Your task to perform on an android device: install app "Facebook Messenger" Image 0: 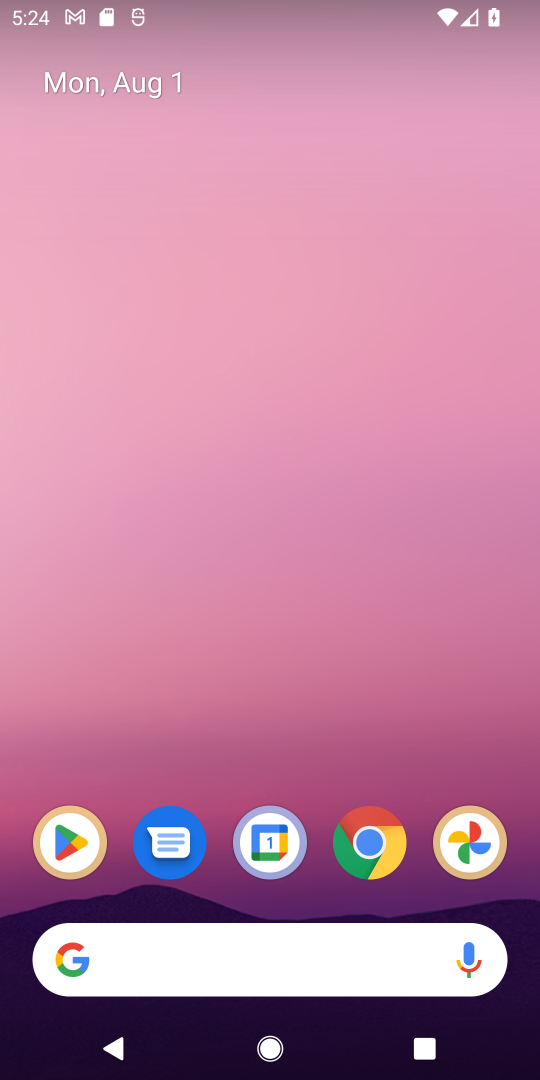
Step 0: drag from (412, 987) to (266, 317)
Your task to perform on an android device: install app "Facebook Messenger" Image 1: 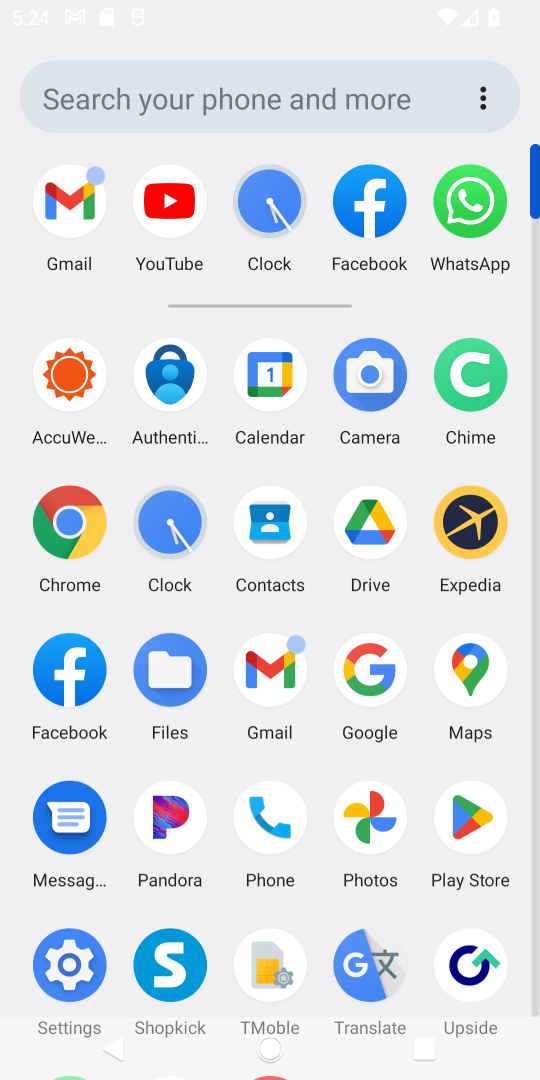
Step 1: drag from (371, 804) to (264, 307)
Your task to perform on an android device: install app "Facebook Messenger" Image 2: 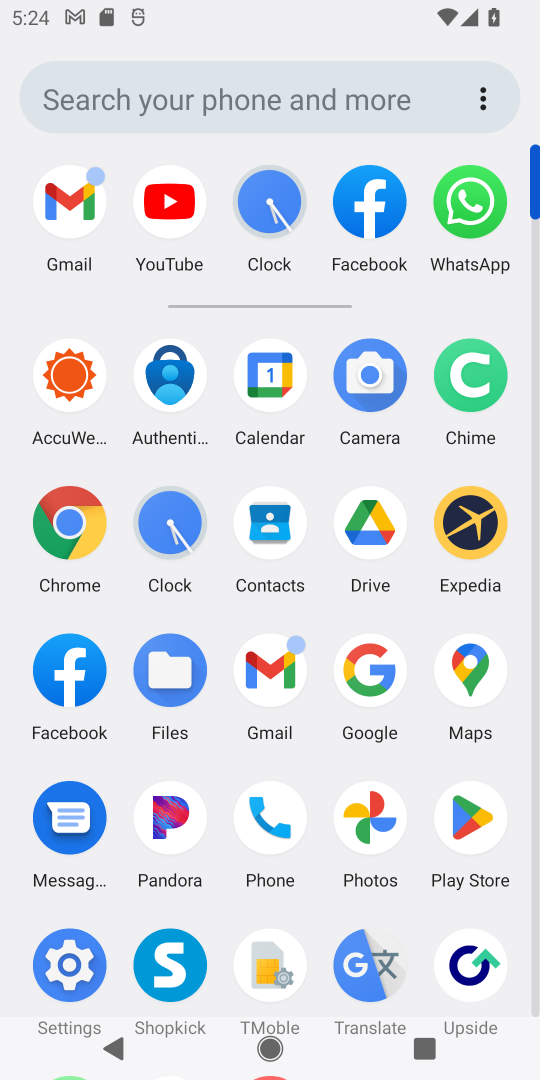
Step 2: click (463, 819)
Your task to perform on an android device: install app "Facebook Messenger" Image 3: 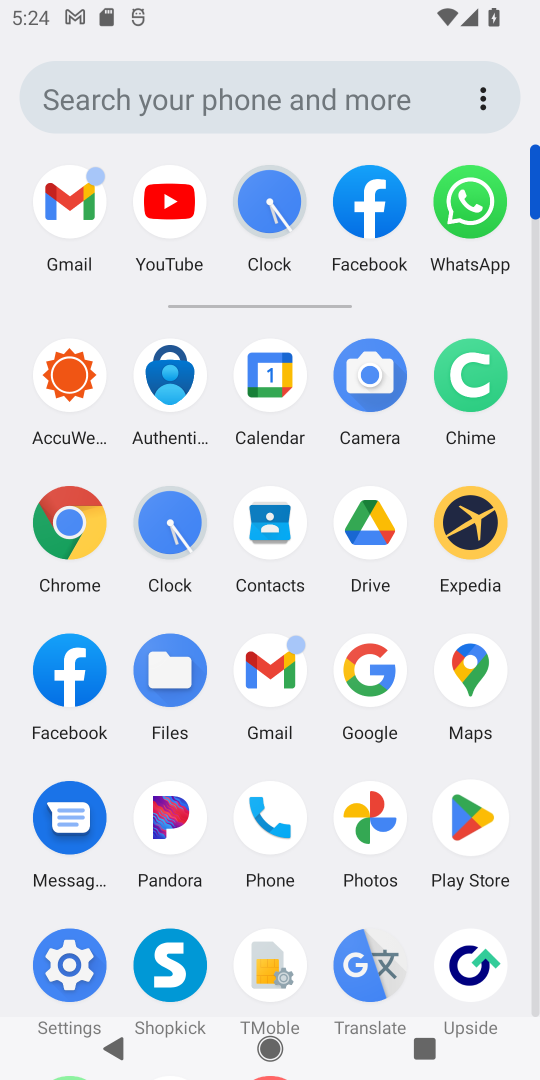
Step 3: click (463, 819)
Your task to perform on an android device: install app "Facebook Messenger" Image 4: 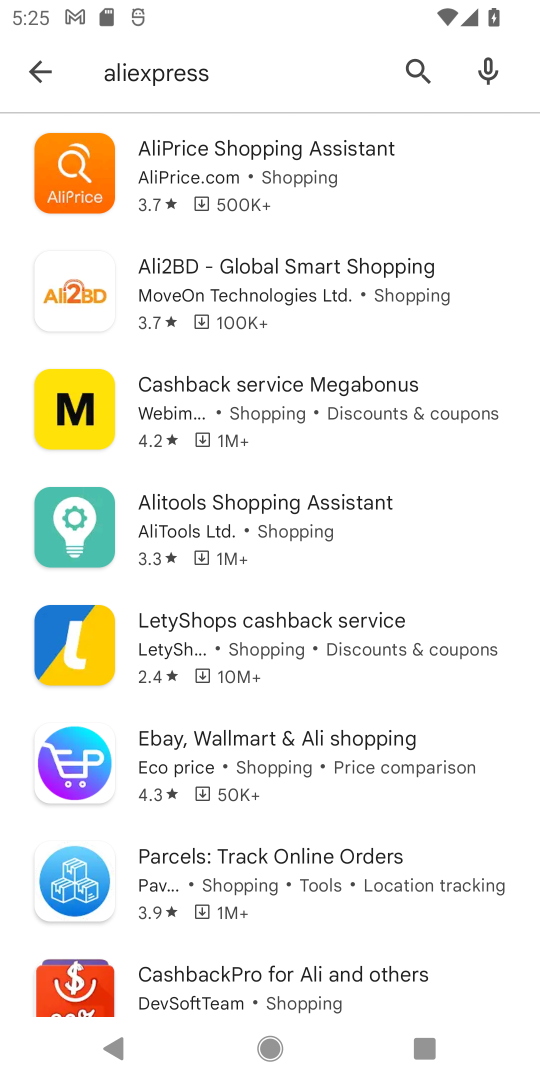
Step 4: click (20, 70)
Your task to perform on an android device: install app "Facebook Messenger" Image 5: 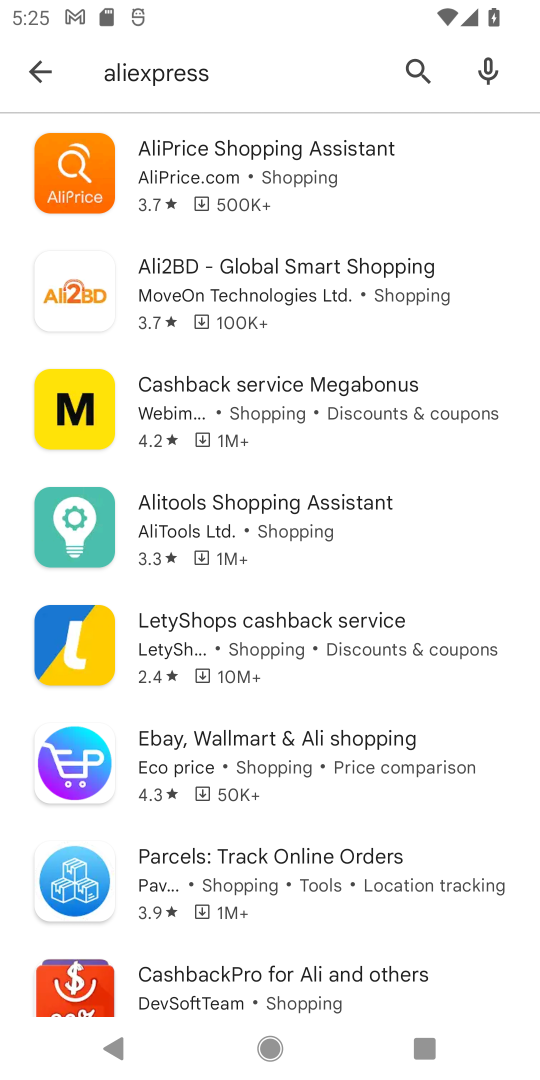
Step 5: click (24, 82)
Your task to perform on an android device: install app "Facebook Messenger" Image 6: 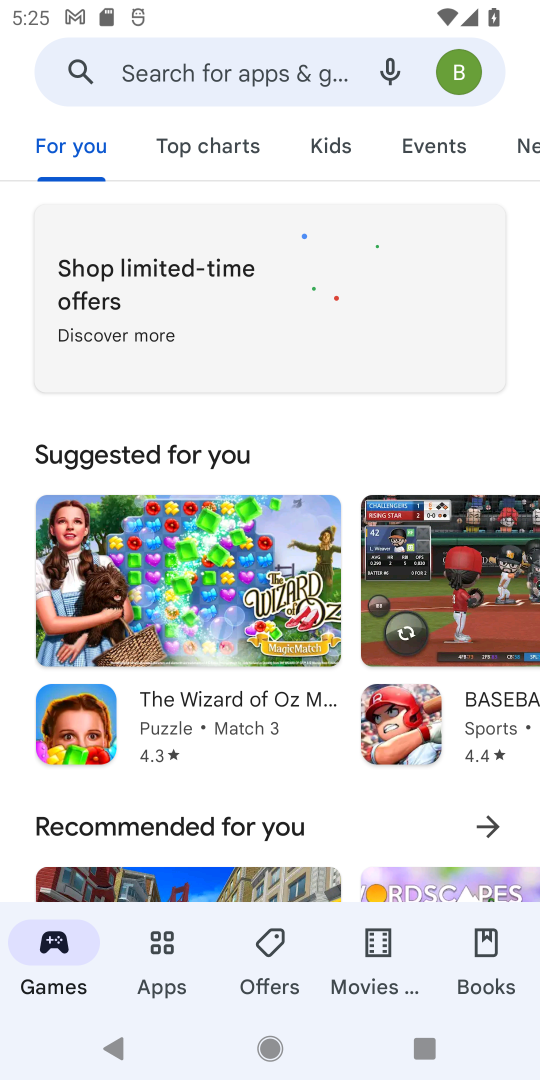
Step 6: click (159, 56)
Your task to perform on an android device: install app "Facebook Messenger" Image 7: 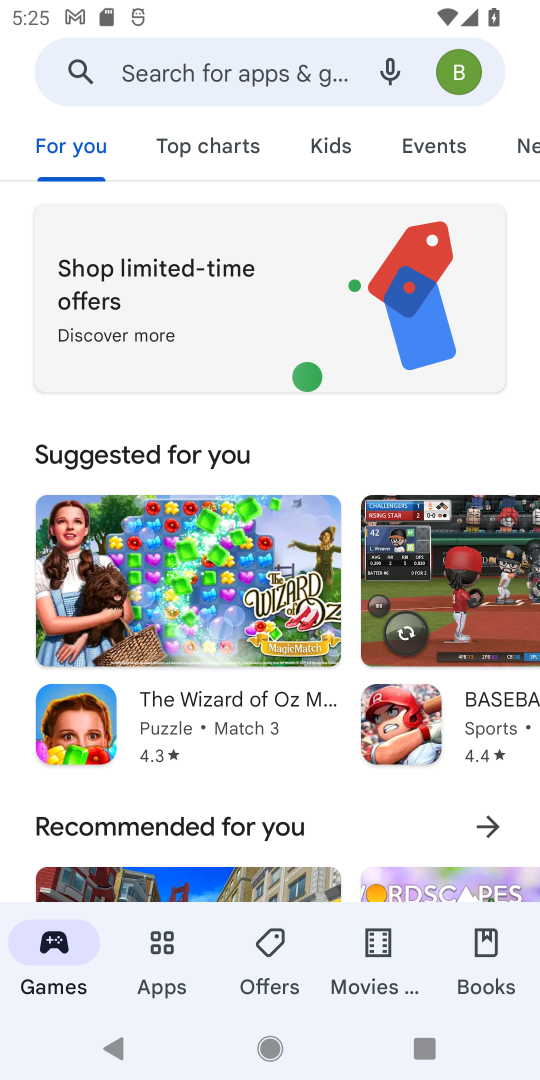
Step 7: click (159, 56)
Your task to perform on an android device: install app "Facebook Messenger" Image 8: 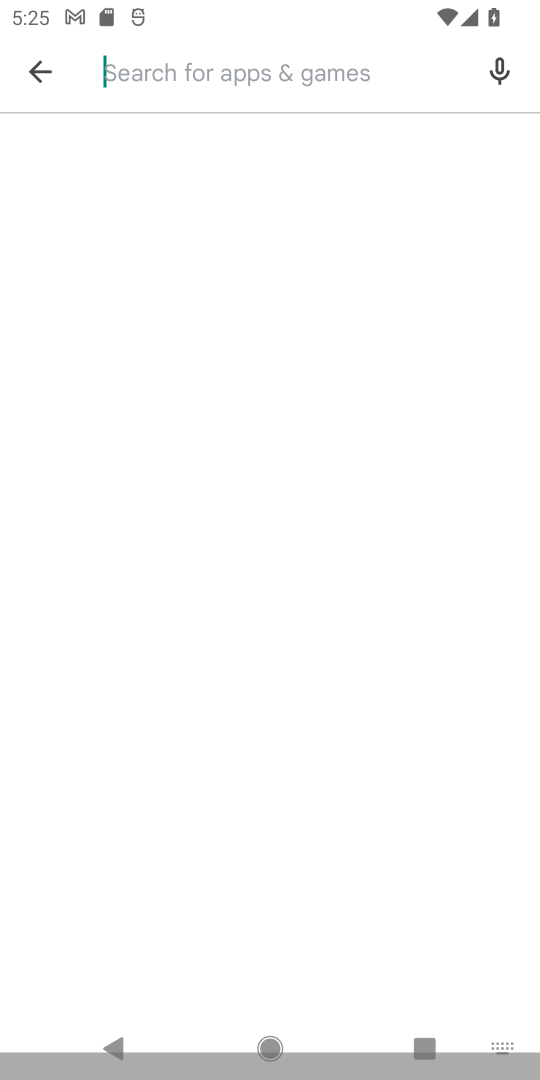
Step 8: click (159, 56)
Your task to perform on an android device: install app "Facebook Messenger" Image 9: 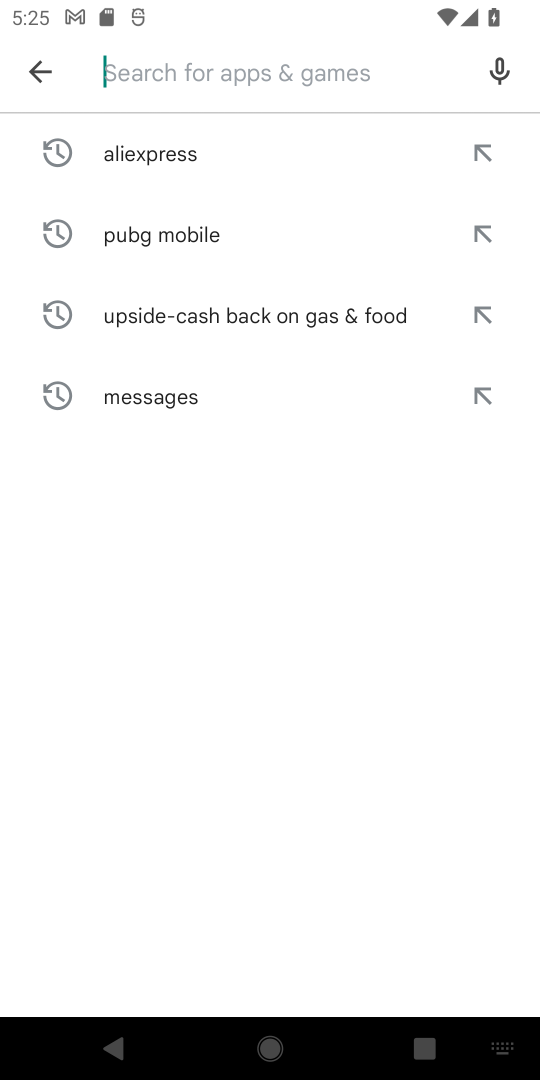
Step 9: type "Facebook Messenger"
Your task to perform on an android device: install app "Facebook Messenger" Image 10: 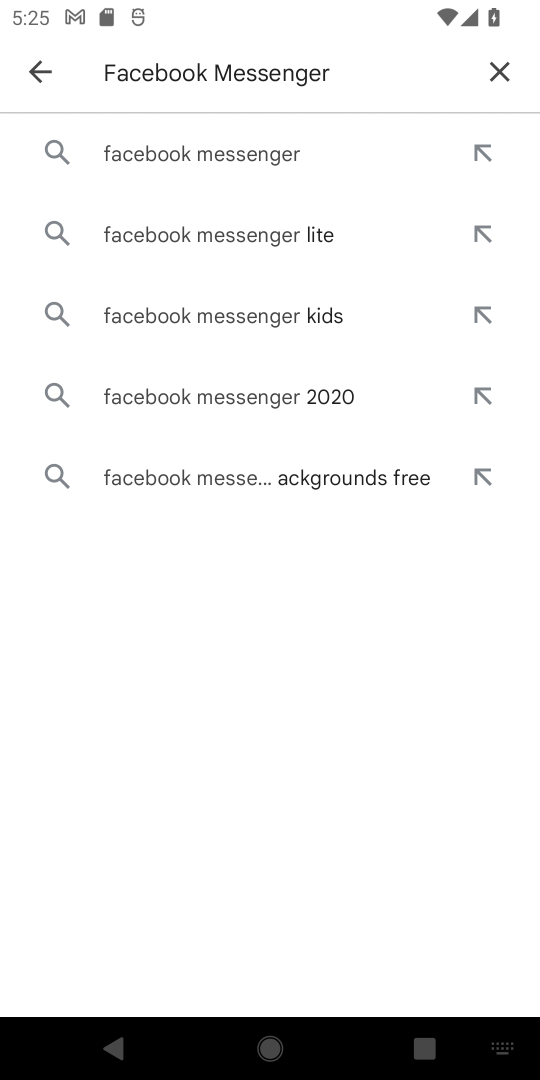
Step 10: click (151, 154)
Your task to perform on an android device: install app "Facebook Messenger" Image 11: 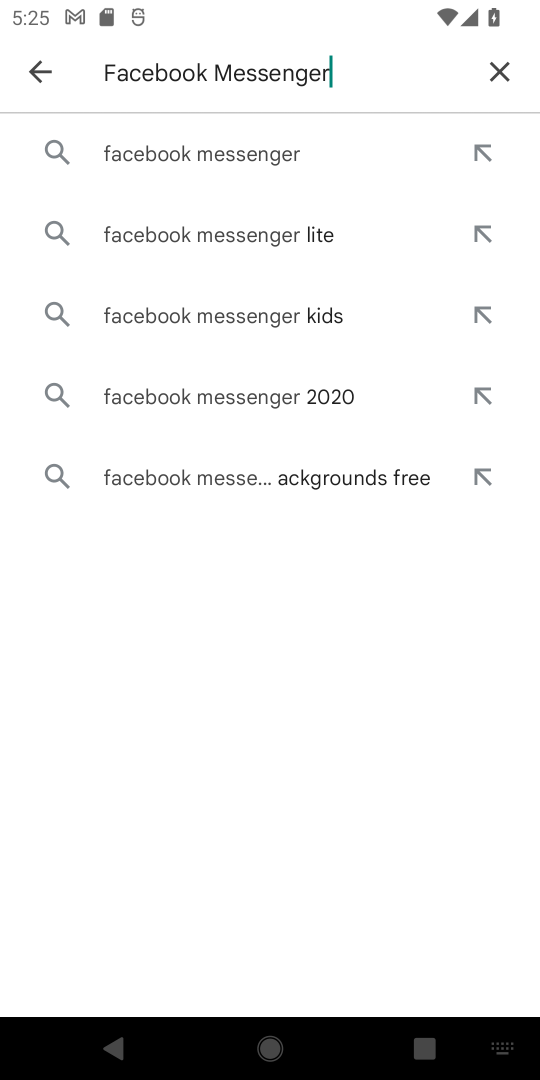
Step 11: click (151, 154)
Your task to perform on an android device: install app "Facebook Messenger" Image 12: 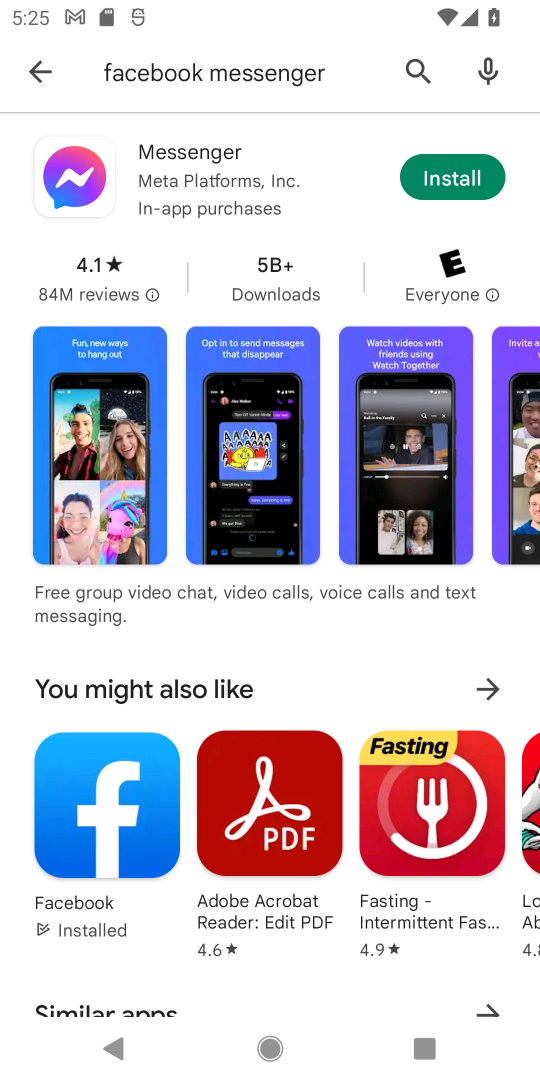
Step 12: click (446, 182)
Your task to perform on an android device: install app "Facebook Messenger" Image 13: 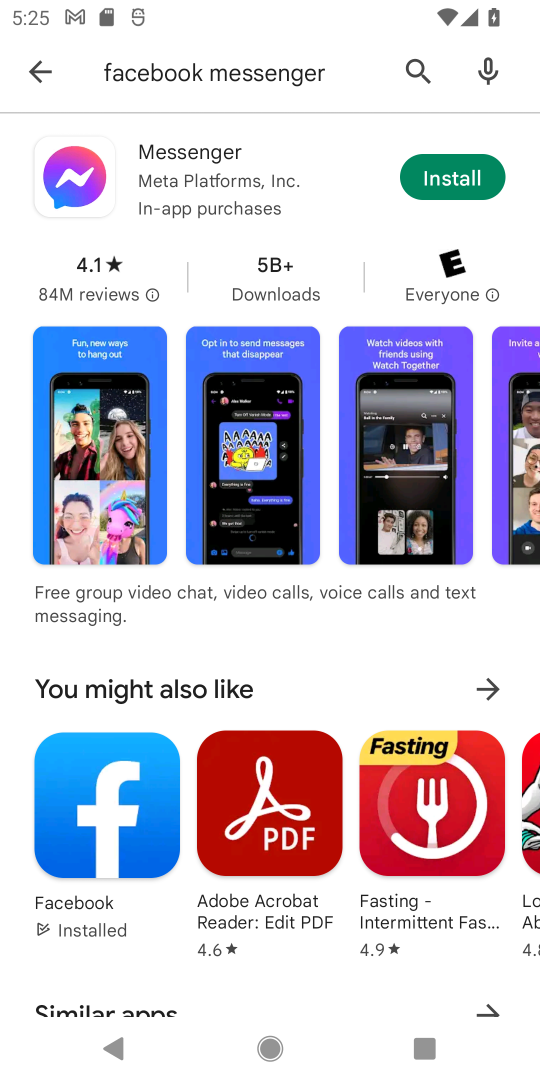
Step 13: click (475, 162)
Your task to perform on an android device: install app "Facebook Messenger" Image 14: 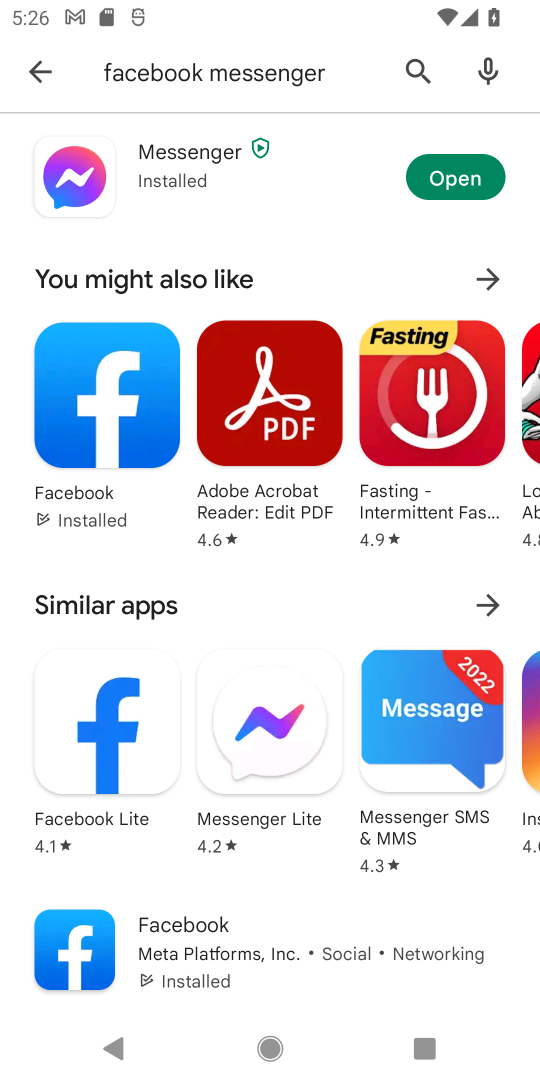
Step 14: click (440, 169)
Your task to perform on an android device: install app "Facebook Messenger" Image 15: 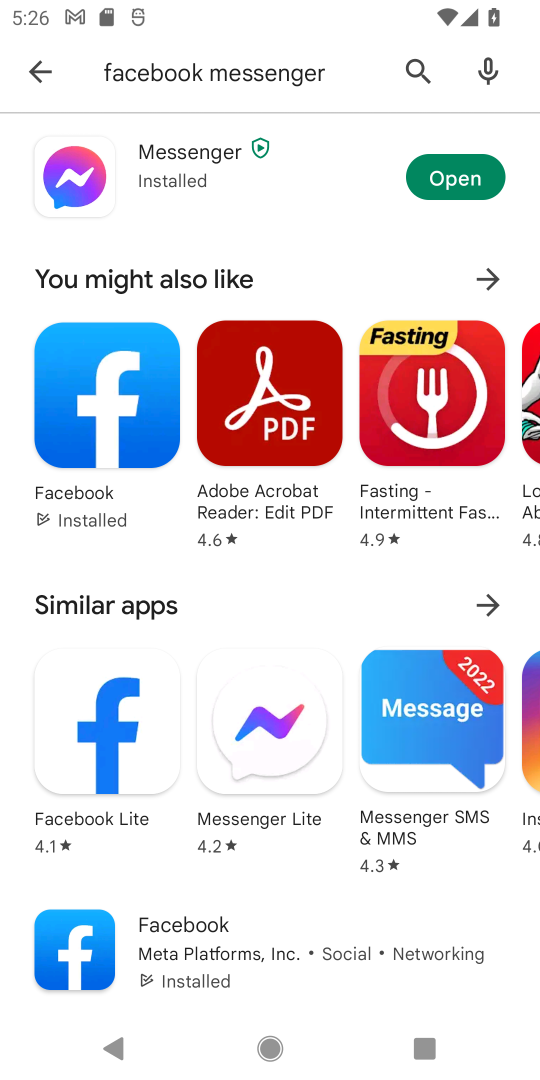
Step 15: click (444, 169)
Your task to perform on an android device: install app "Facebook Messenger" Image 16: 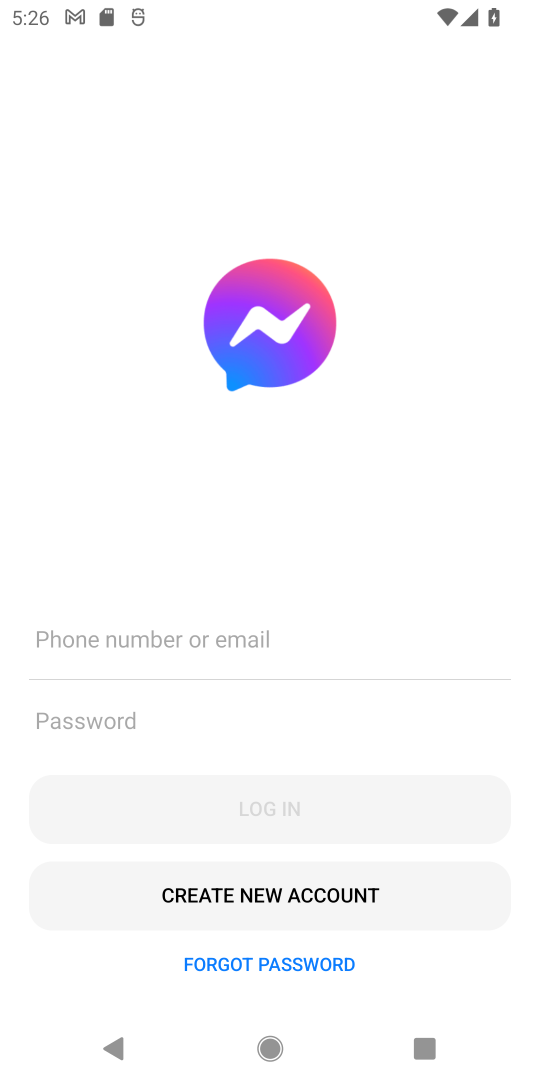
Step 16: task complete